Your task to perform on an android device: Open maps Image 0: 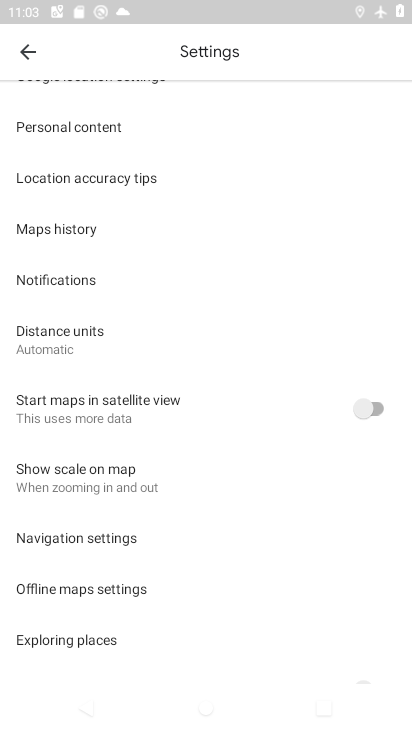
Step 0: press home button
Your task to perform on an android device: Open maps Image 1: 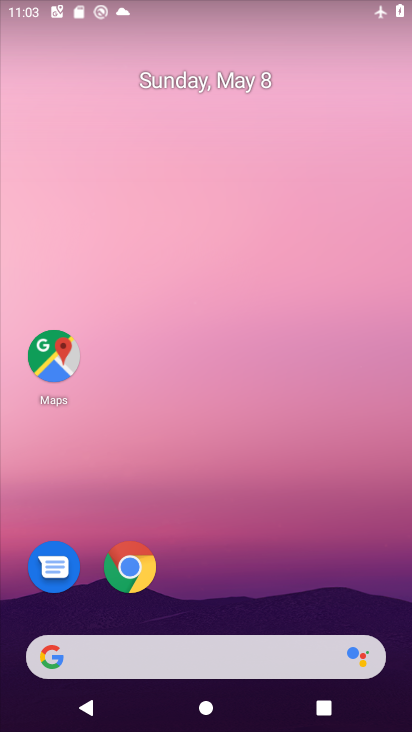
Step 1: click (60, 385)
Your task to perform on an android device: Open maps Image 2: 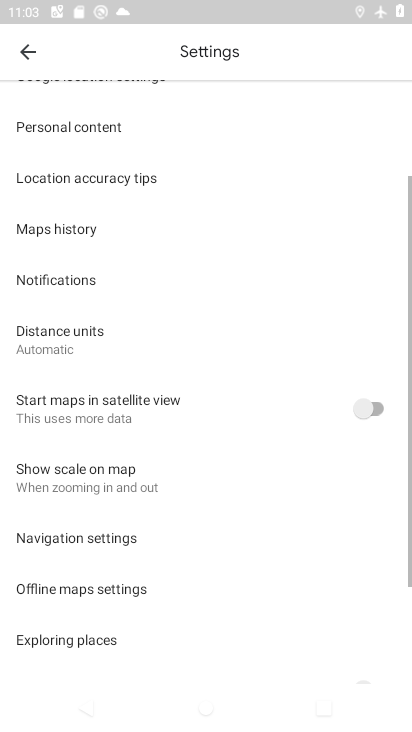
Step 2: click (24, 42)
Your task to perform on an android device: Open maps Image 3: 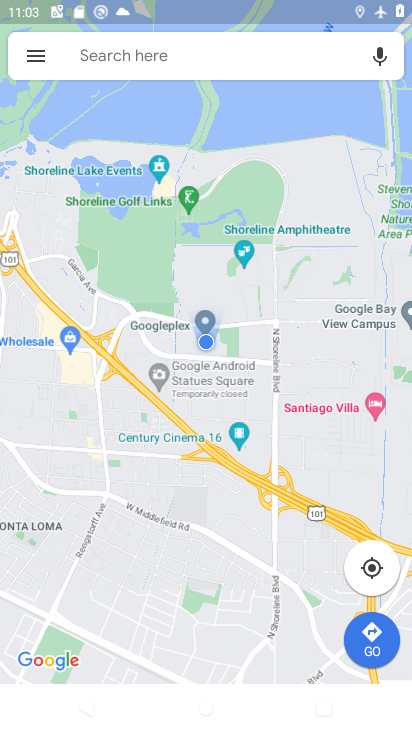
Step 3: task complete